Your task to perform on an android device: change the clock display to show seconds Image 0: 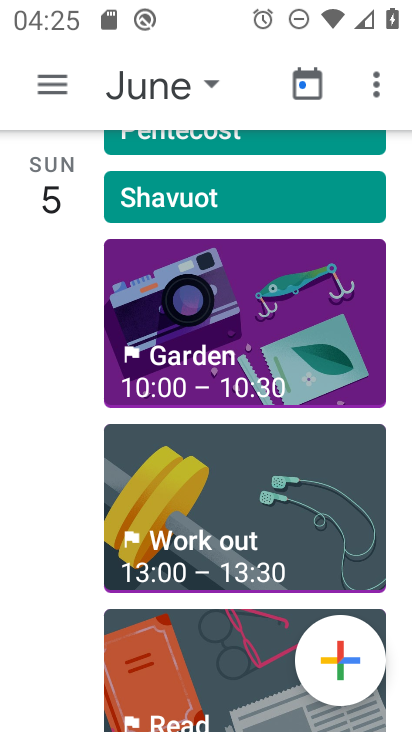
Step 0: press home button
Your task to perform on an android device: change the clock display to show seconds Image 1: 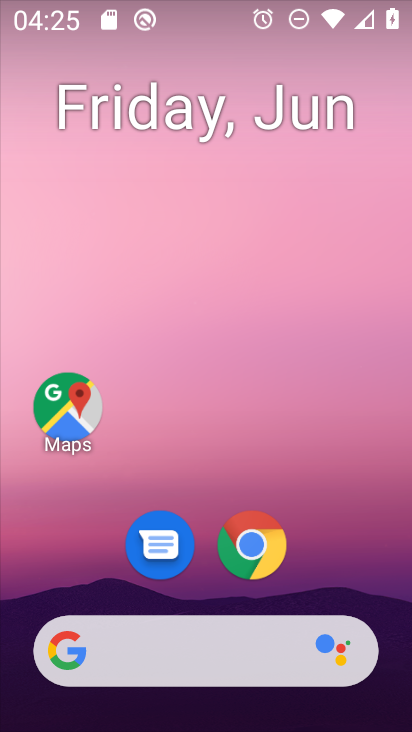
Step 1: drag from (318, 578) to (232, 57)
Your task to perform on an android device: change the clock display to show seconds Image 2: 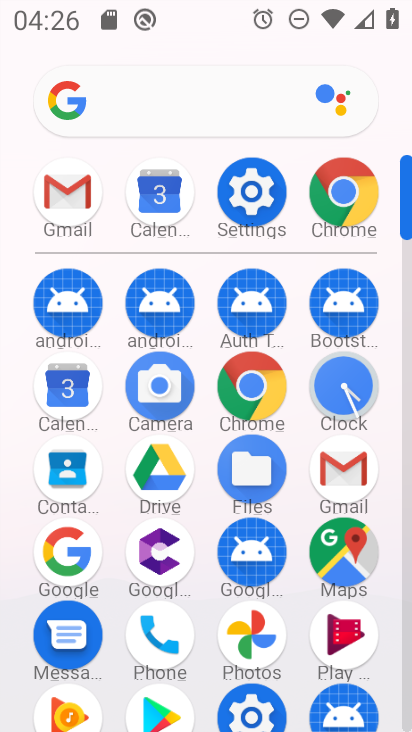
Step 2: click (336, 401)
Your task to perform on an android device: change the clock display to show seconds Image 3: 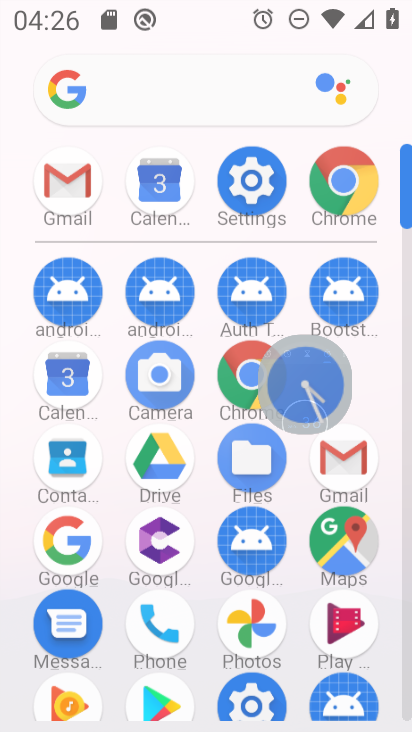
Step 3: click (353, 384)
Your task to perform on an android device: change the clock display to show seconds Image 4: 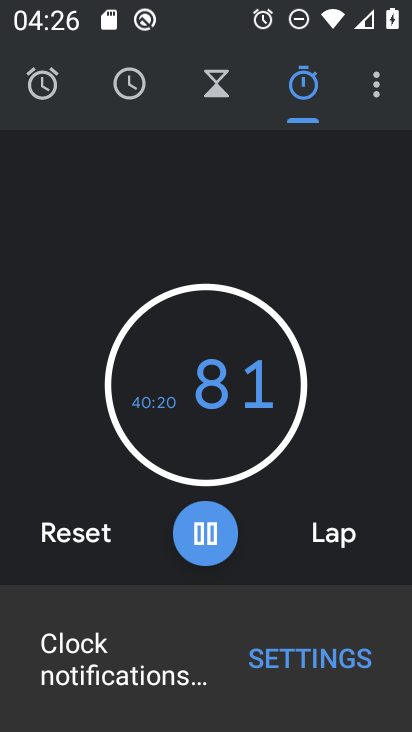
Step 4: click (368, 86)
Your task to perform on an android device: change the clock display to show seconds Image 5: 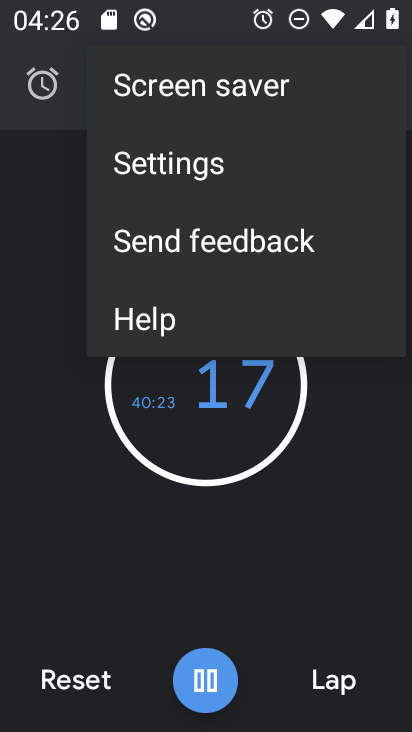
Step 5: click (147, 168)
Your task to perform on an android device: change the clock display to show seconds Image 6: 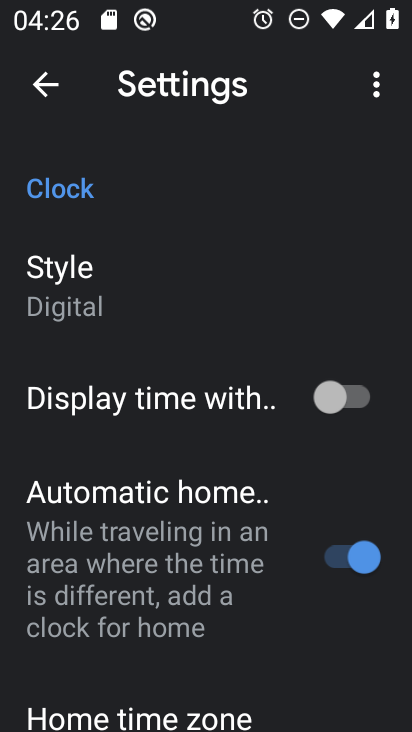
Step 6: click (362, 406)
Your task to perform on an android device: change the clock display to show seconds Image 7: 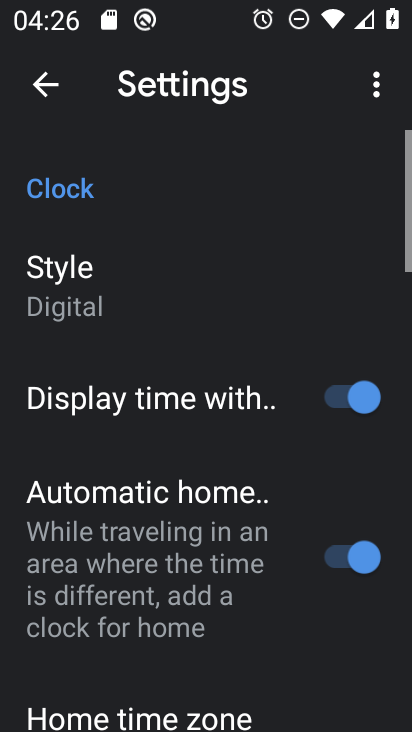
Step 7: task complete